Your task to perform on an android device: Open CNN.com Image 0: 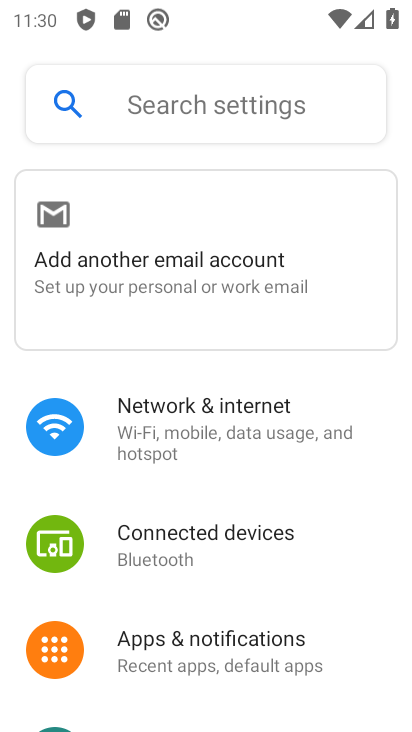
Step 0: press home button
Your task to perform on an android device: Open CNN.com Image 1: 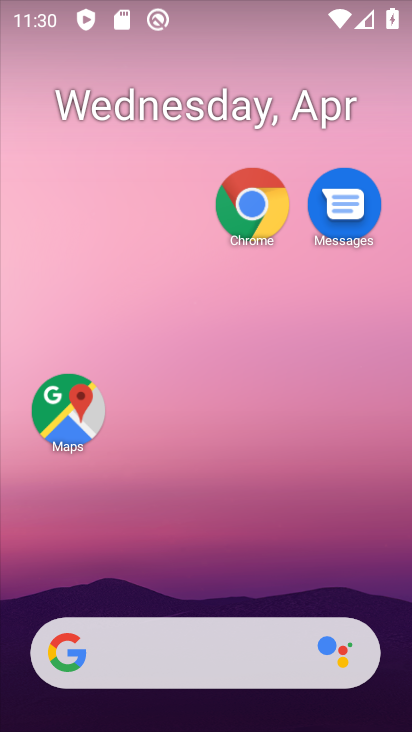
Step 1: drag from (217, 593) to (312, 21)
Your task to perform on an android device: Open CNN.com Image 2: 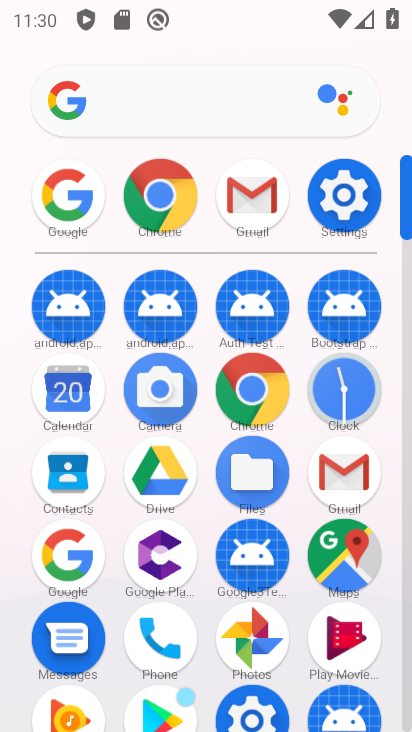
Step 2: click (266, 407)
Your task to perform on an android device: Open CNN.com Image 3: 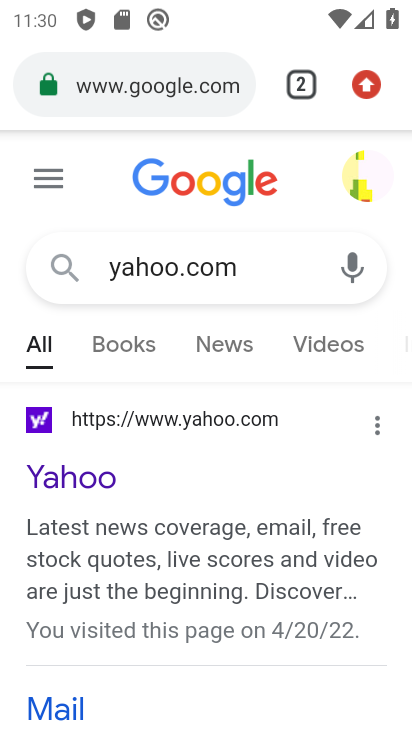
Step 3: click (202, 93)
Your task to perform on an android device: Open CNN.com Image 4: 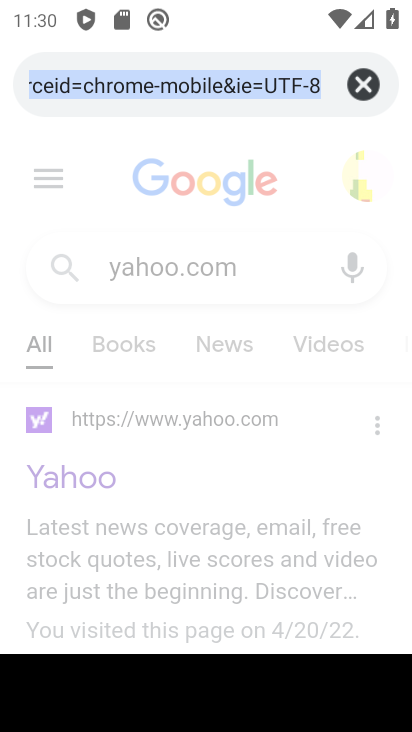
Step 4: click (356, 81)
Your task to perform on an android device: Open CNN.com Image 5: 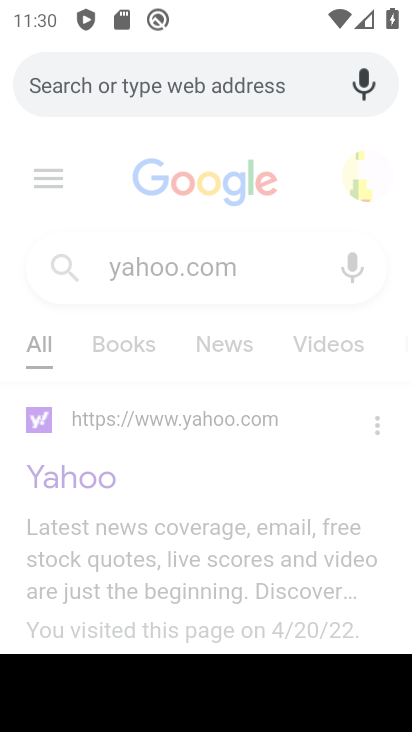
Step 5: type "cnn.com"
Your task to perform on an android device: Open CNN.com Image 6: 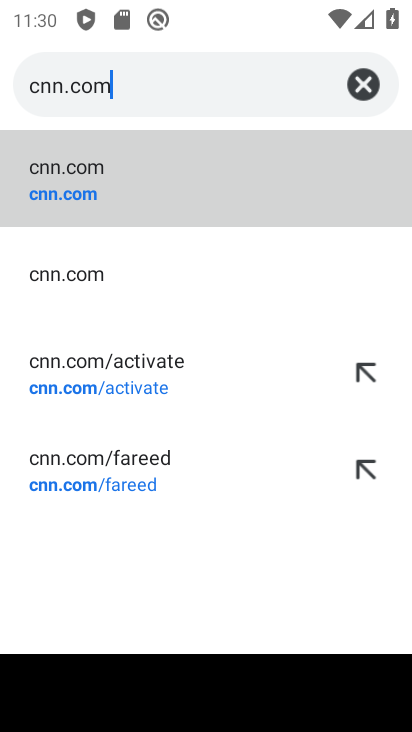
Step 6: click (105, 212)
Your task to perform on an android device: Open CNN.com Image 7: 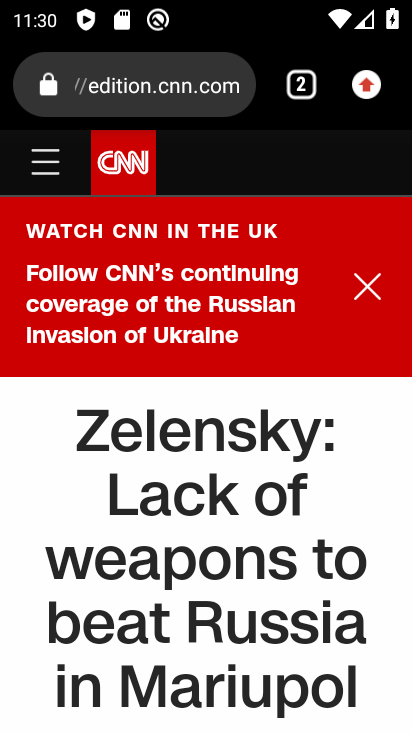
Step 7: task complete